Your task to perform on an android device: change alarm snooze length Image 0: 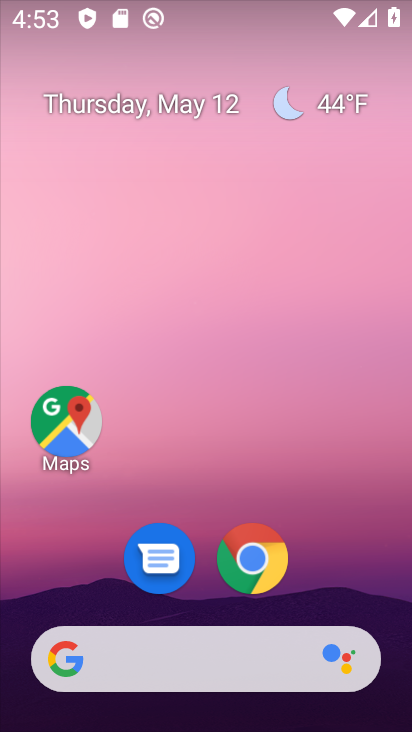
Step 0: drag from (345, 521) to (286, 8)
Your task to perform on an android device: change alarm snooze length Image 1: 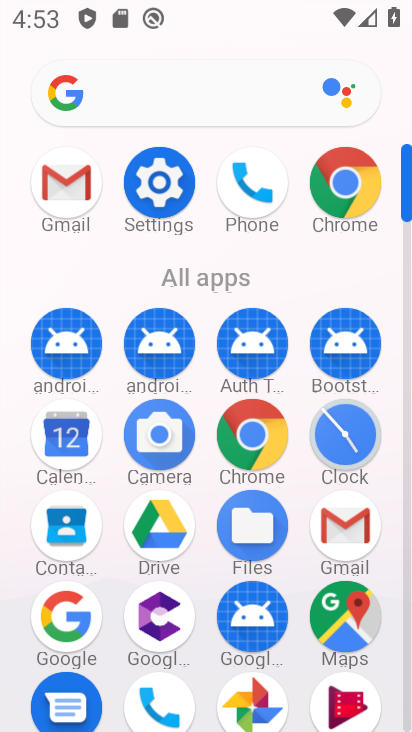
Step 1: drag from (9, 580) to (3, 246)
Your task to perform on an android device: change alarm snooze length Image 2: 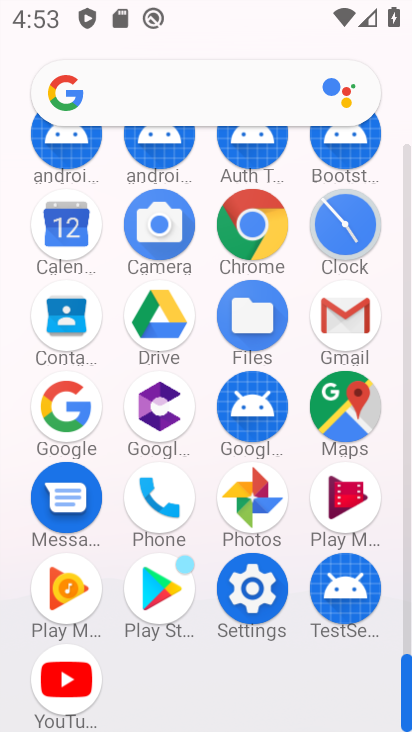
Step 2: click (343, 220)
Your task to perform on an android device: change alarm snooze length Image 3: 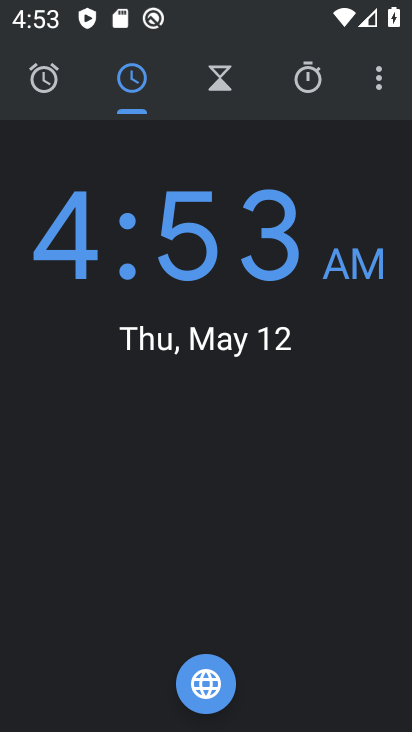
Step 3: click (297, 79)
Your task to perform on an android device: change alarm snooze length Image 4: 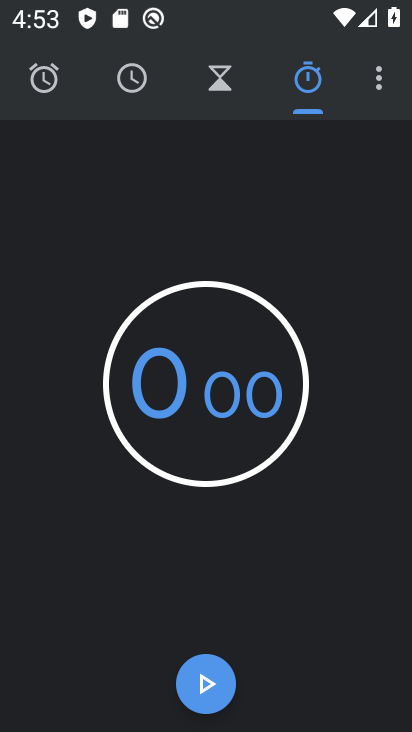
Step 4: click (211, 79)
Your task to perform on an android device: change alarm snooze length Image 5: 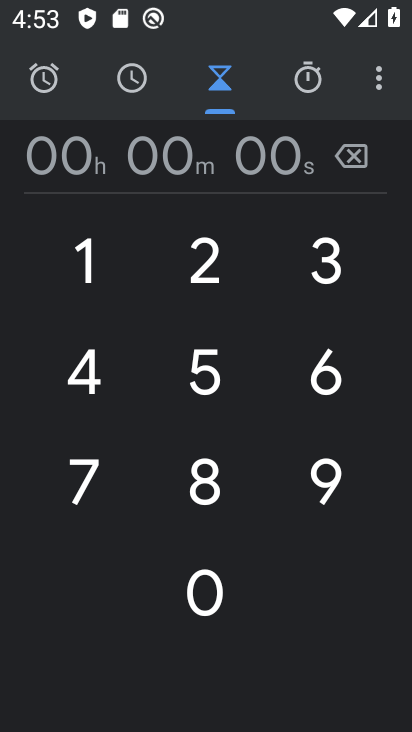
Step 5: click (129, 79)
Your task to perform on an android device: change alarm snooze length Image 6: 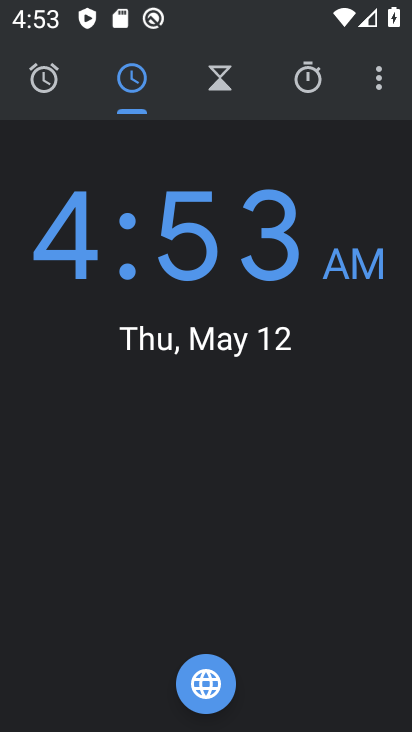
Step 6: click (311, 69)
Your task to perform on an android device: change alarm snooze length Image 7: 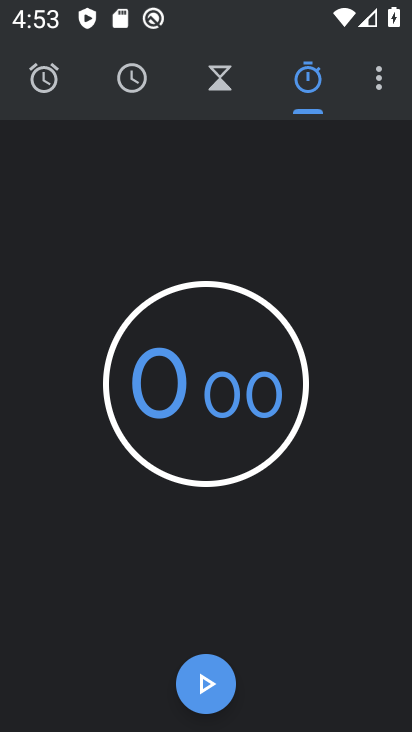
Step 7: drag from (370, 81) to (300, 156)
Your task to perform on an android device: change alarm snooze length Image 8: 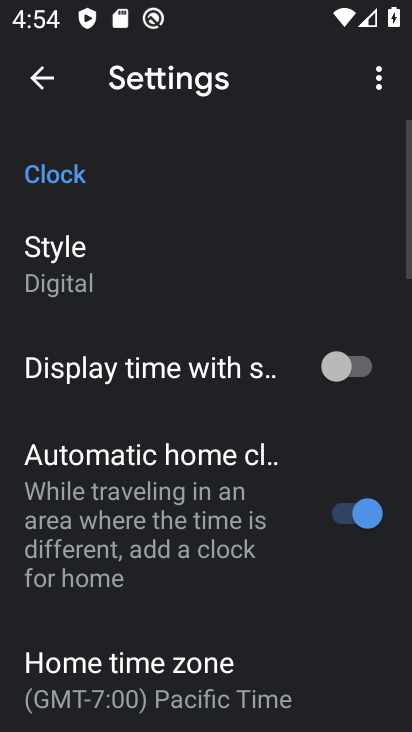
Step 8: drag from (233, 565) to (256, 184)
Your task to perform on an android device: change alarm snooze length Image 9: 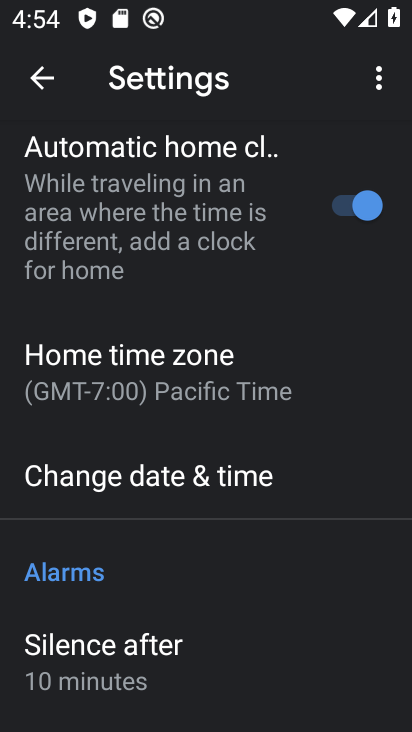
Step 9: drag from (200, 610) to (208, 231)
Your task to perform on an android device: change alarm snooze length Image 10: 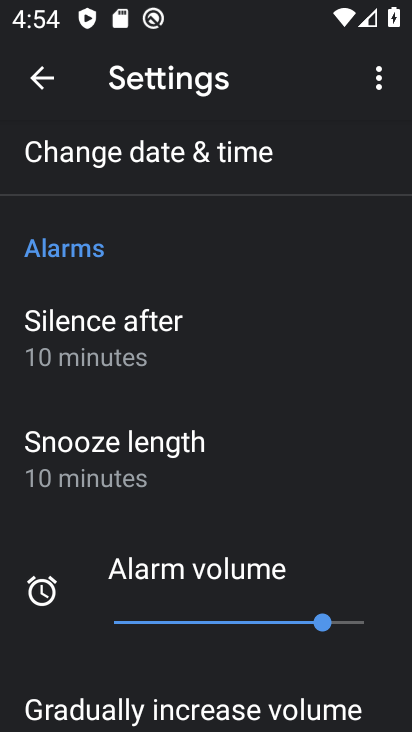
Step 10: click (163, 431)
Your task to perform on an android device: change alarm snooze length Image 11: 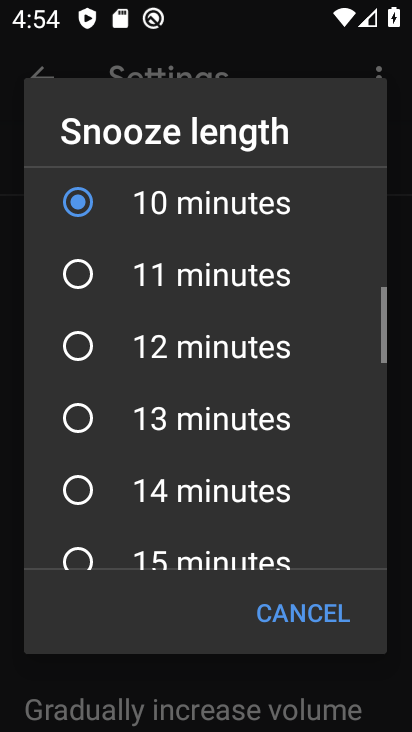
Step 11: click (165, 349)
Your task to perform on an android device: change alarm snooze length Image 12: 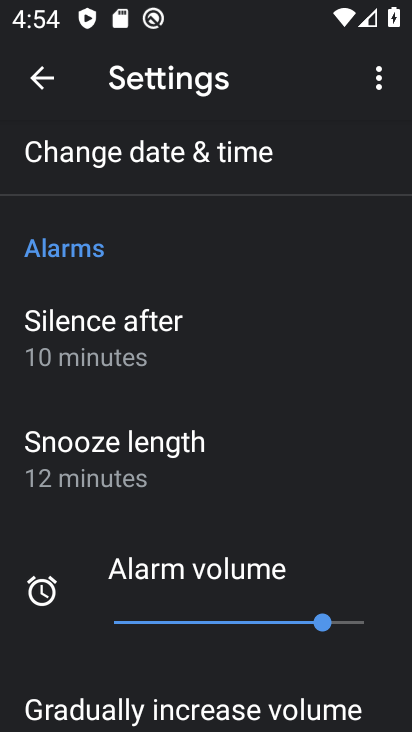
Step 12: task complete